Your task to perform on an android device: Open the web browser Image 0: 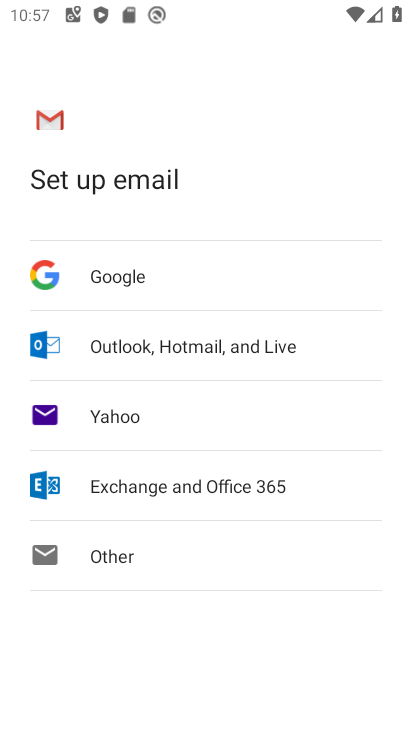
Step 0: press home button
Your task to perform on an android device: Open the web browser Image 1: 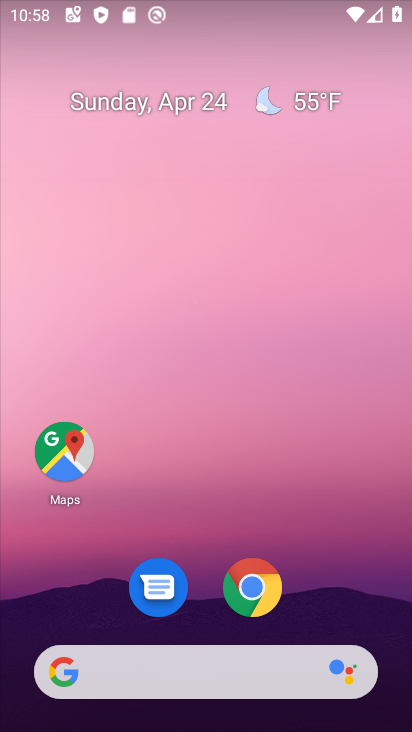
Step 1: click (310, 600)
Your task to perform on an android device: Open the web browser Image 2: 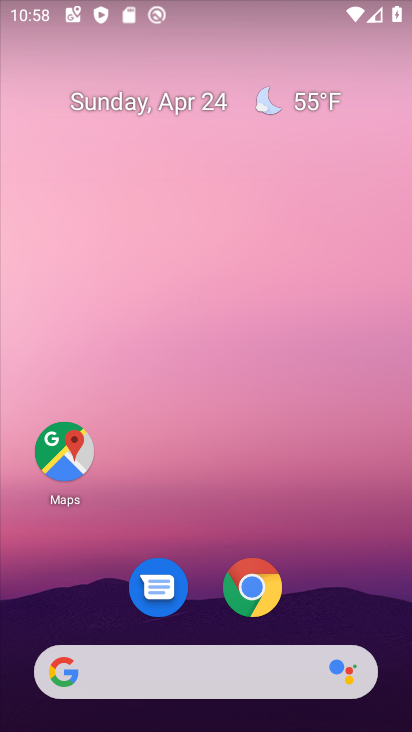
Step 2: drag from (345, 611) to (368, 86)
Your task to perform on an android device: Open the web browser Image 3: 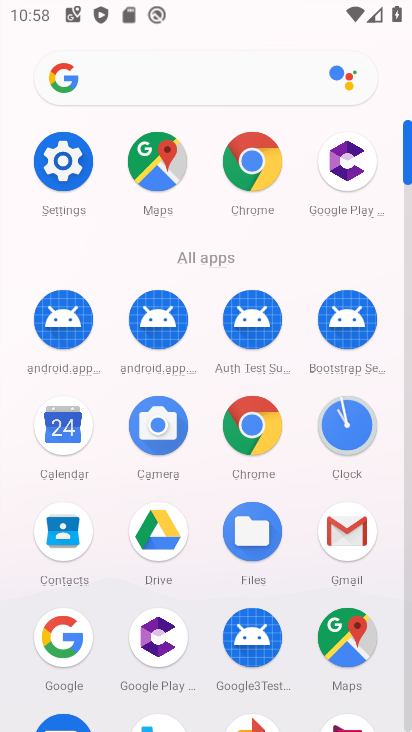
Step 3: click (260, 416)
Your task to perform on an android device: Open the web browser Image 4: 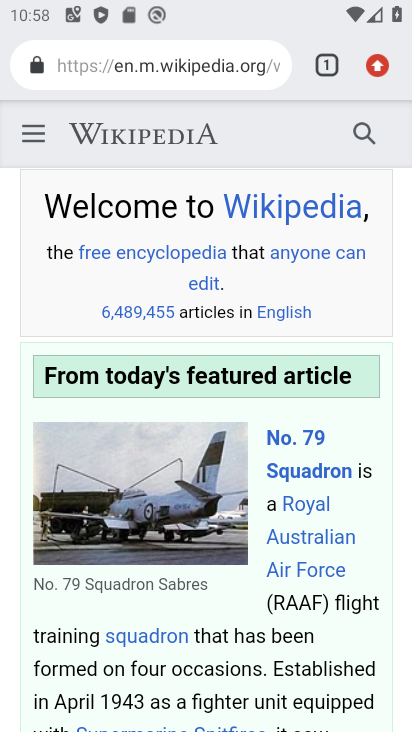
Step 4: task complete